Your task to perform on an android device: Open battery settings Image 0: 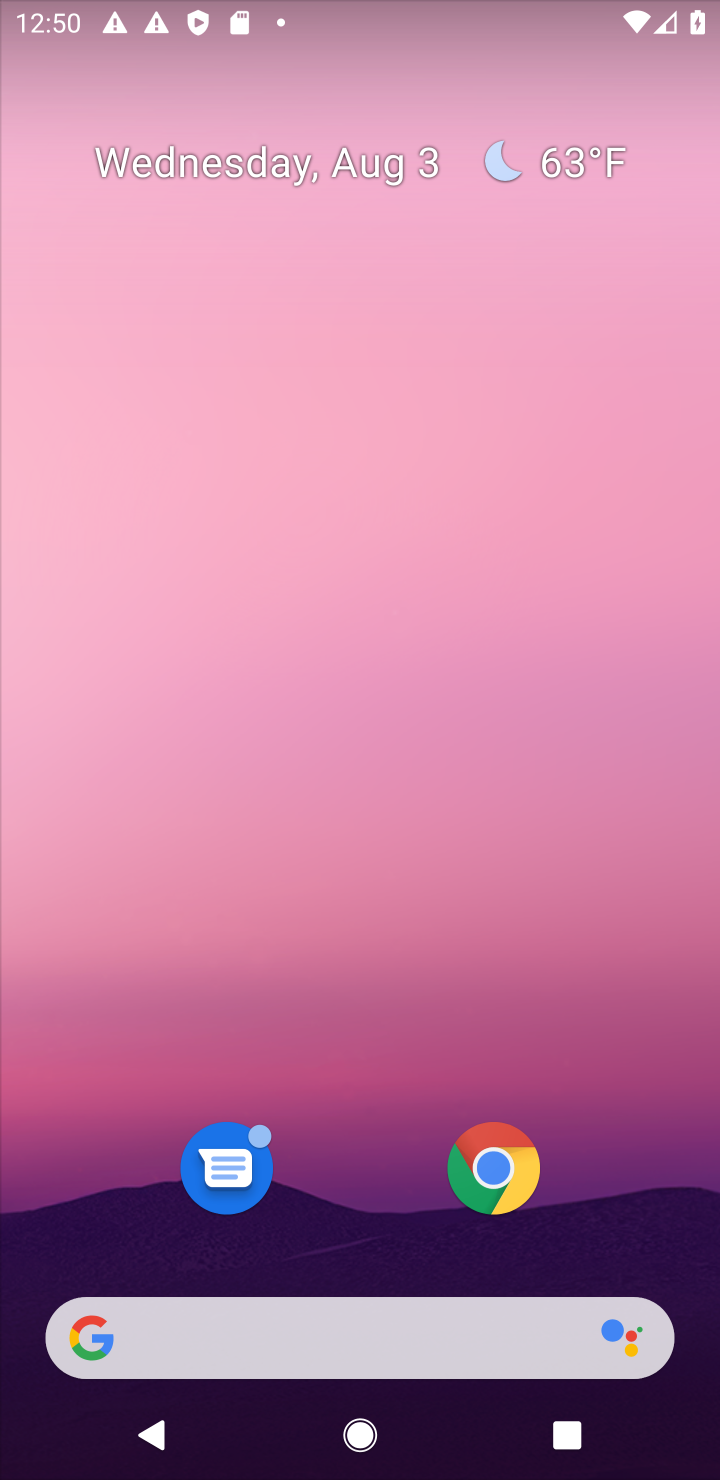
Step 0: drag from (327, 1228) to (314, 225)
Your task to perform on an android device: Open battery settings Image 1: 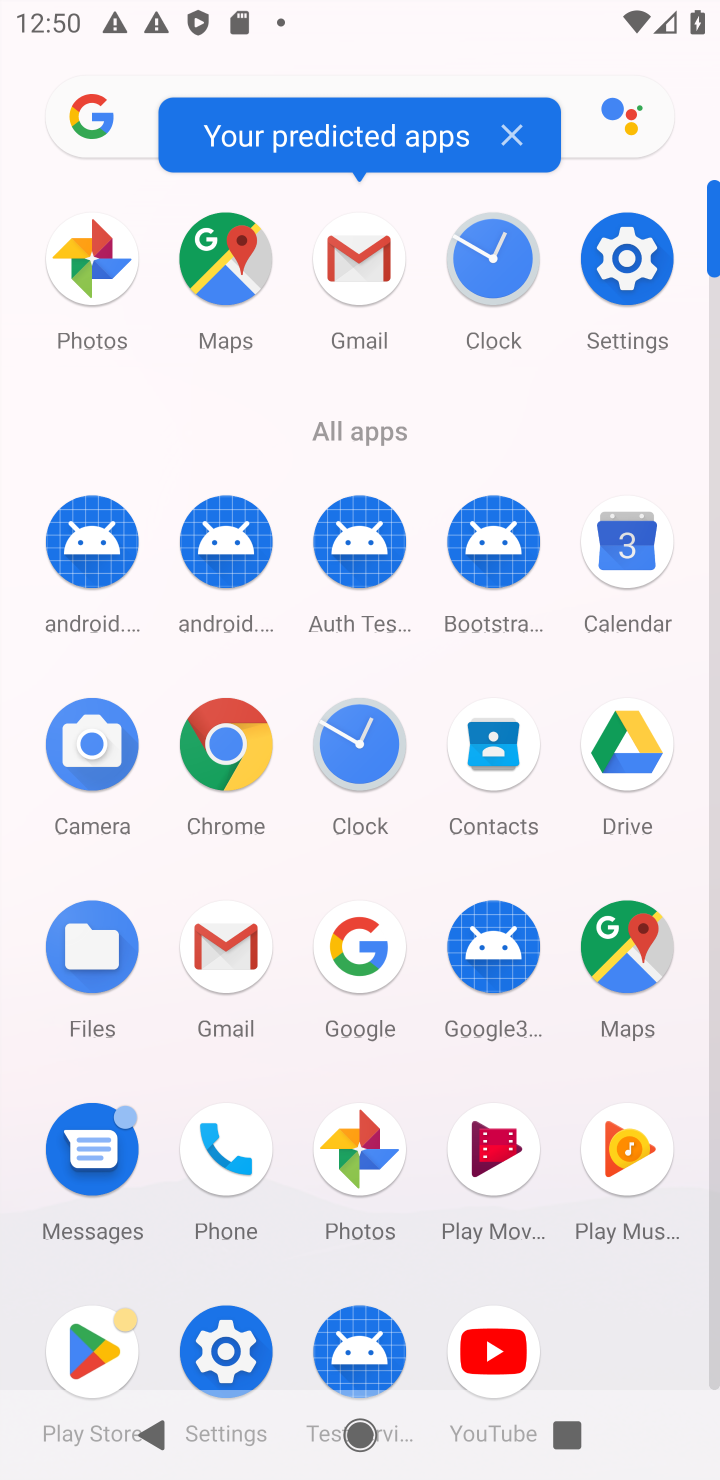
Step 1: click (614, 214)
Your task to perform on an android device: Open battery settings Image 2: 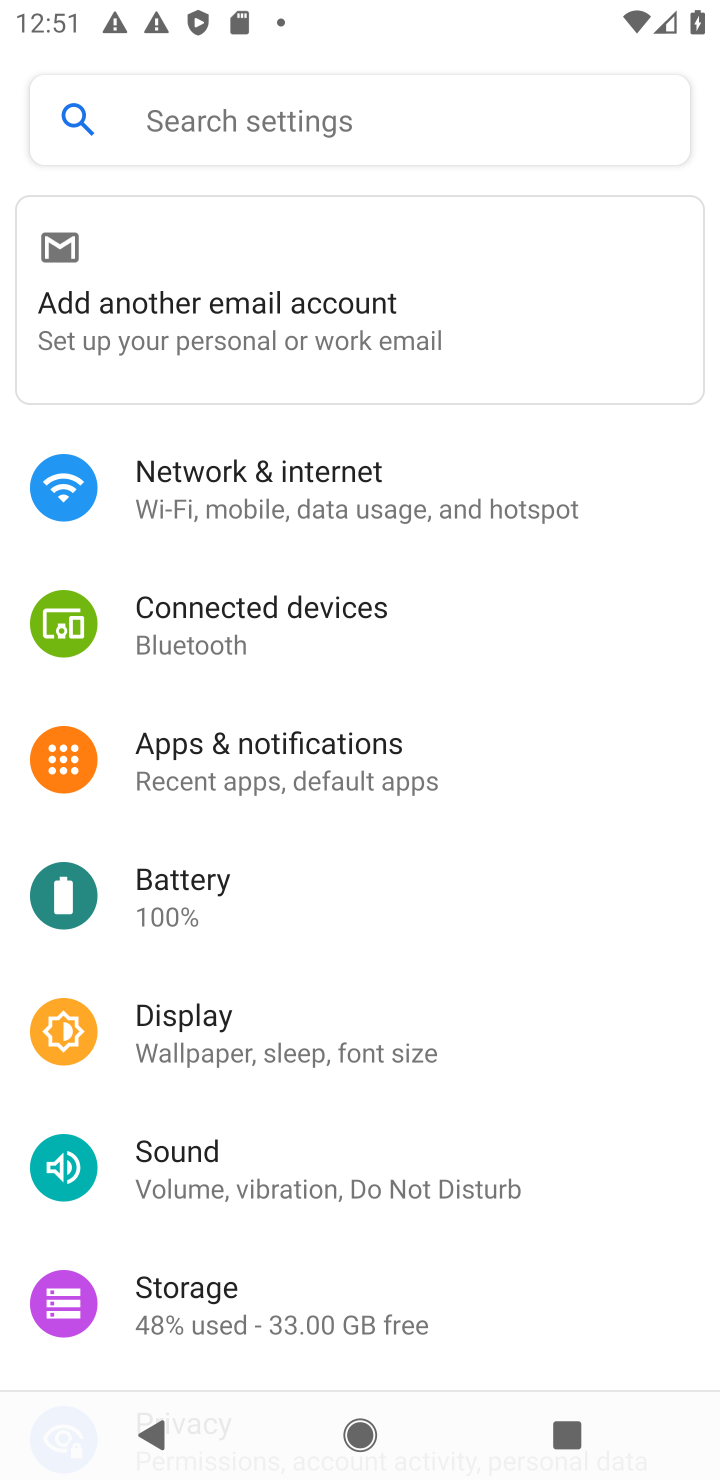
Step 2: click (180, 890)
Your task to perform on an android device: Open battery settings Image 3: 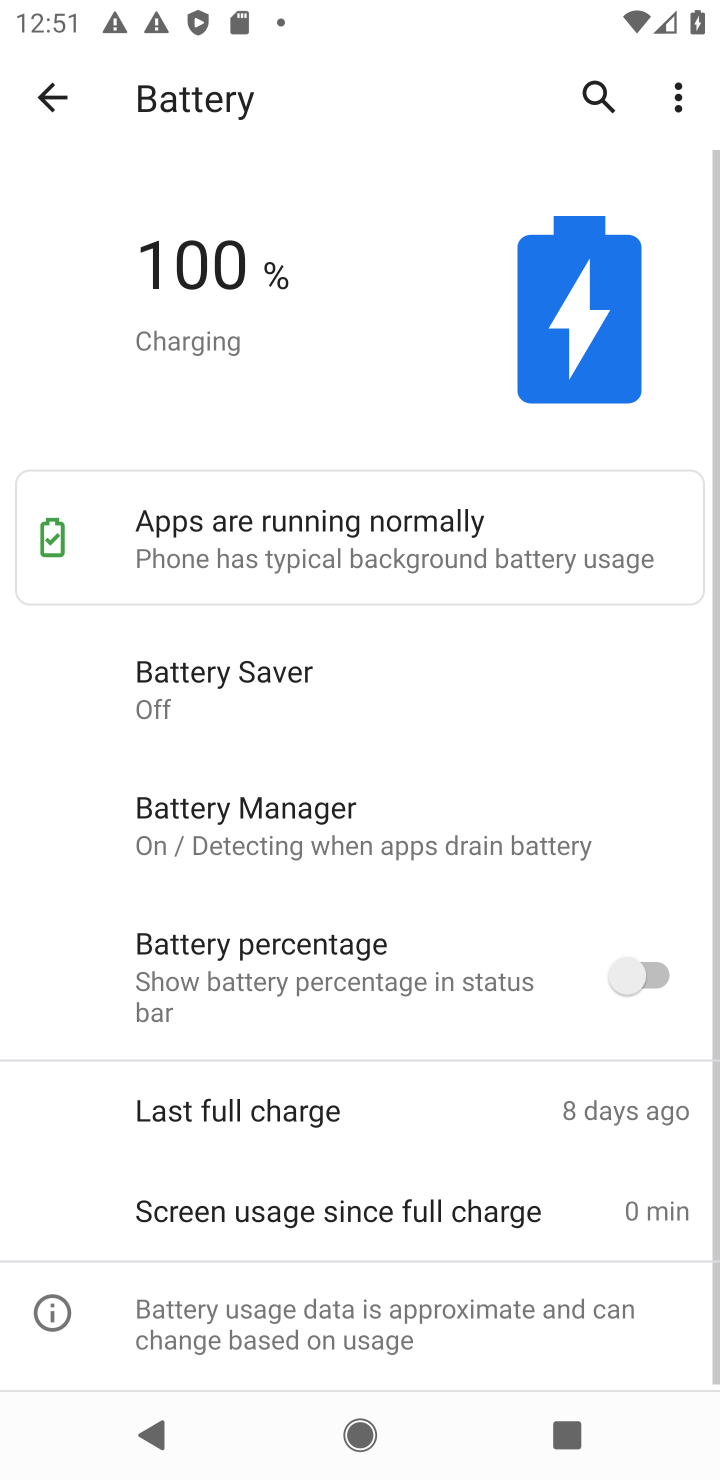
Step 3: task complete